Your task to perform on an android device: Open ESPN.com Image 0: 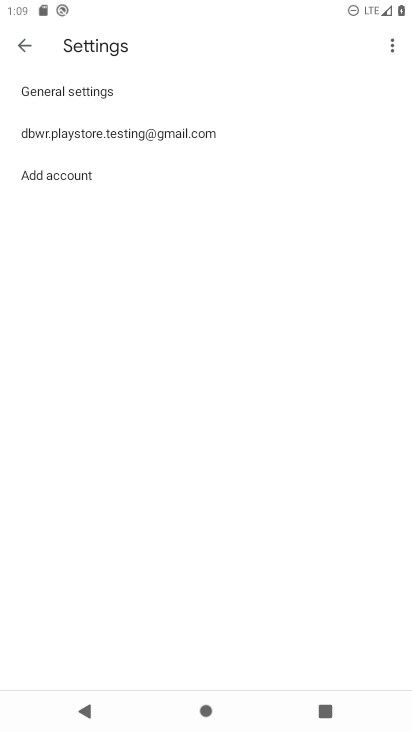
Step 0: press home button
Your task to perform on an android device: Open ESPN.com Image 1: 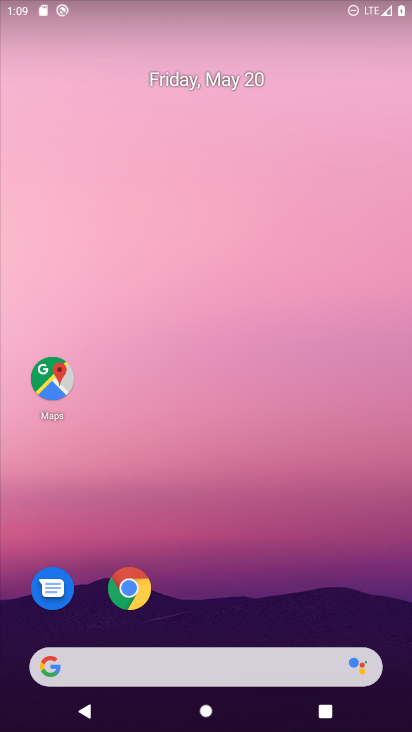
Step 1: click (130, 589)
Your task to perform on an android device: Open ESPN.com Image 2: 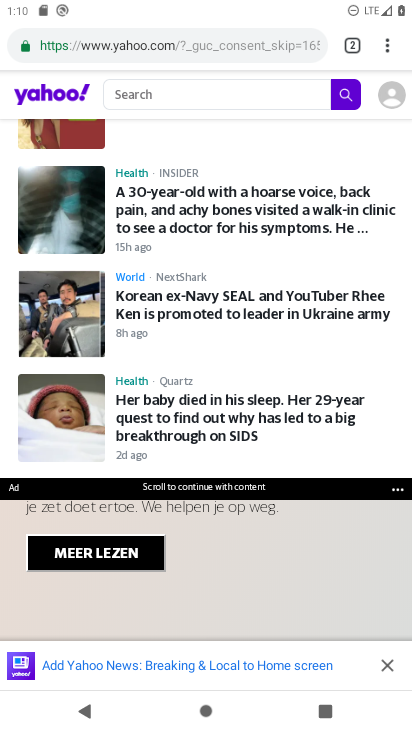
Step 2: click (139, 44)
Your task to perform on an android device: Open ESPN.com Image 3: 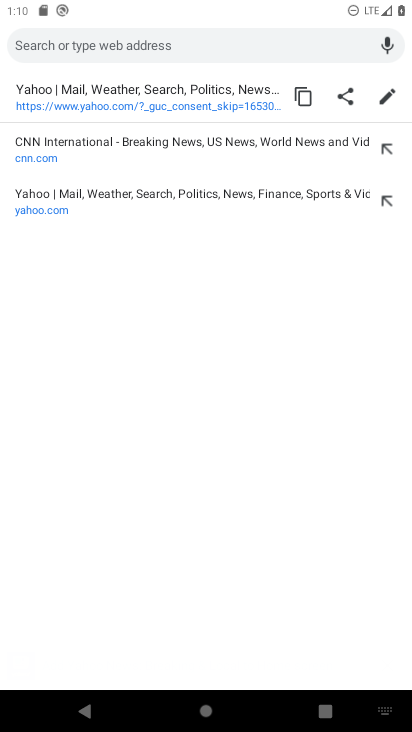
Step 3: type "espn.com"
Your task to perform on an android device: Open ESPN.com Image 4: 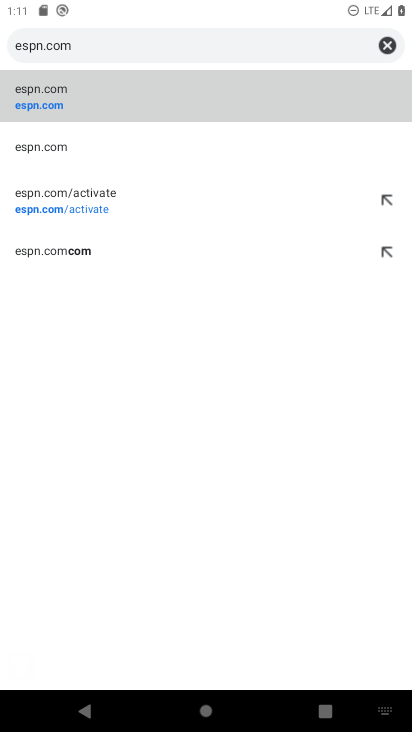
Step 4: click (55, 97)
Your task to perform on an android device: Open ESPN.com Image 5: 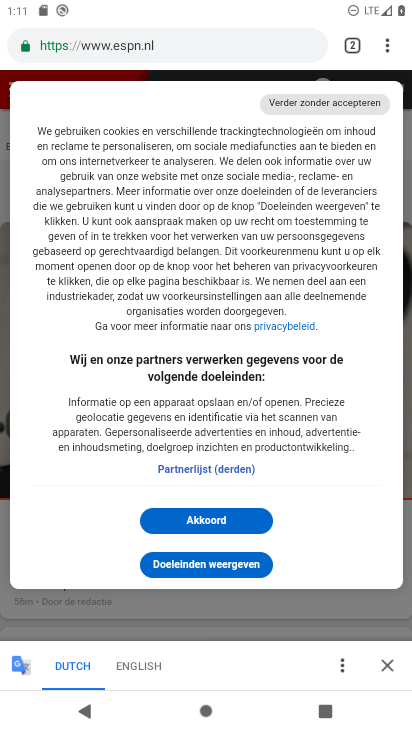
Step 5: task complete